Your task to perform on an android device: Is it going to rain tomorrow? Image 0: 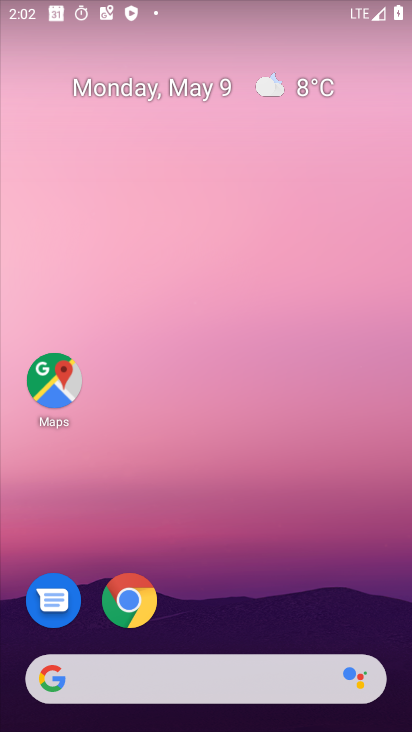
Step 0: drag from (216, 613) to (228, 665)
Your task to perform on an android device: Is it going to rain tomorrow? Image 1: 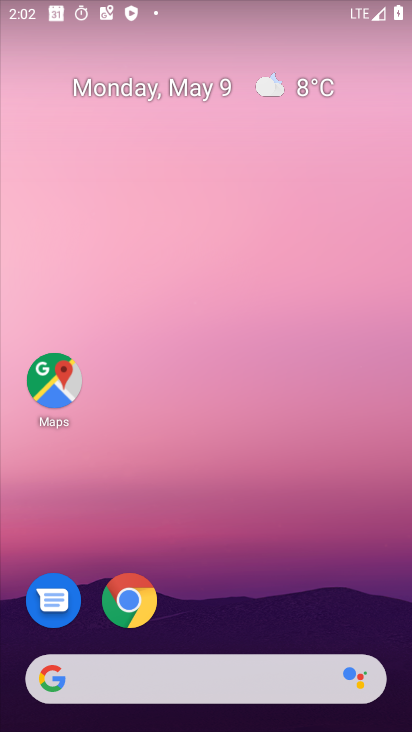
Step 1: click (321, 84)
Your task to perform on an android device: Is it going to rain tomorrow? Image 2: 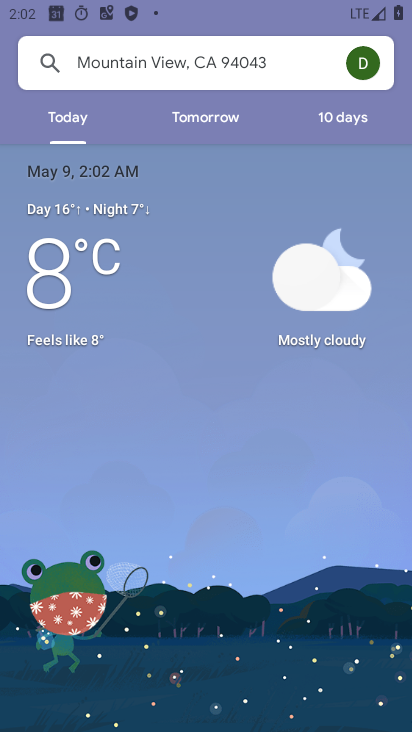
Step 2: click (203, 118)
Your task to perform on an android device: Is it going to rain tomorrow? Image 3: 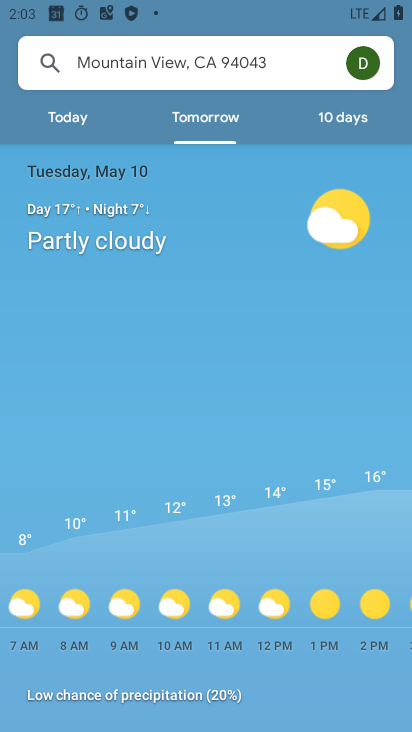
Step 3: task complete